Your task to perform on an android device: Open settings Image 0: 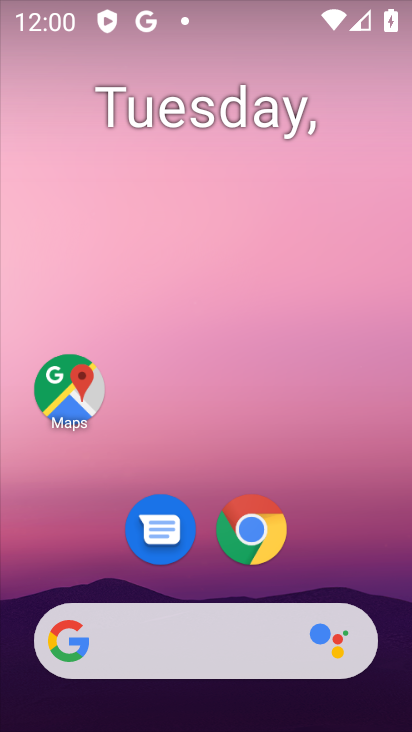
Step 0: drag from (186, 728) to (190, 146)
Your task to perform on an android device: Open settings Image 1: 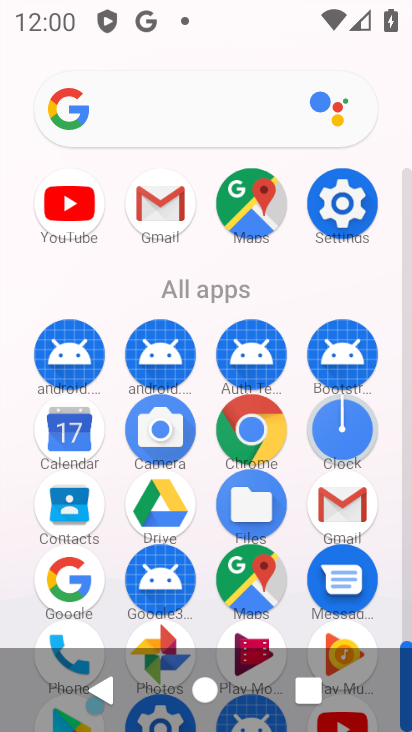
Step 1: click (339, 193)
Your task to perform on an android device: Open settings Image 2: 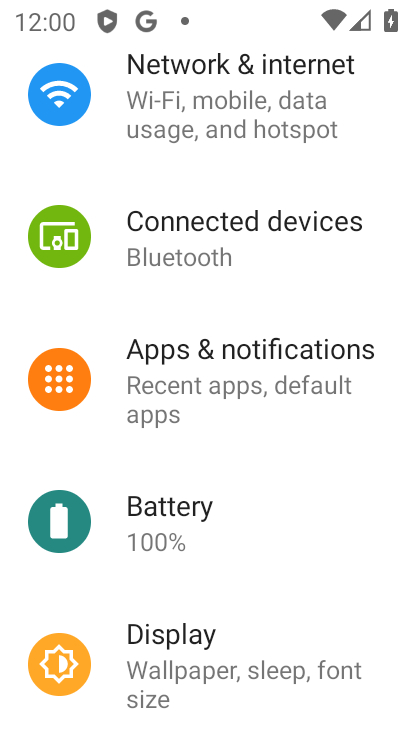
Step 2: task complete